Your task to perform on an android device: set the stopwatch Image 0: 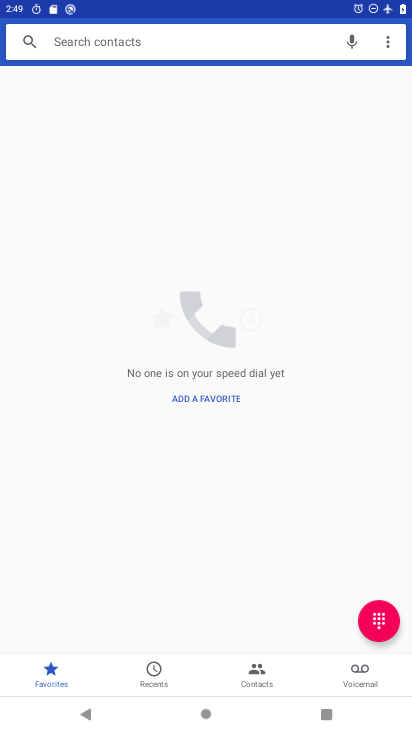
Step 0: press home button
Your task to perform on an android device: set the stopwatch Image 1: 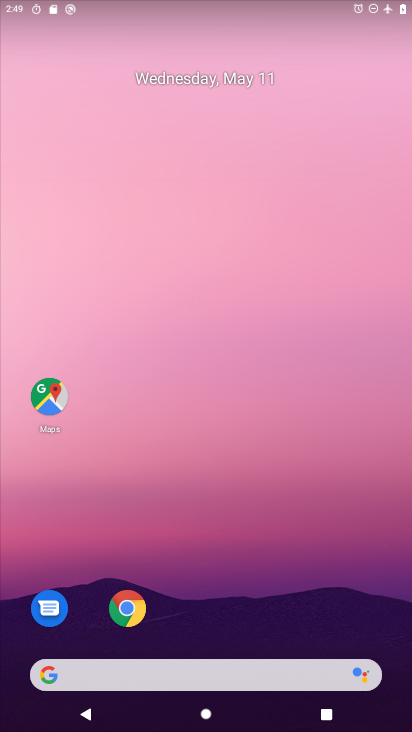
Step 1: drag from (208, 626) to (212, 70)
Your task to perform on an android device: set the stopwatch Image 2: 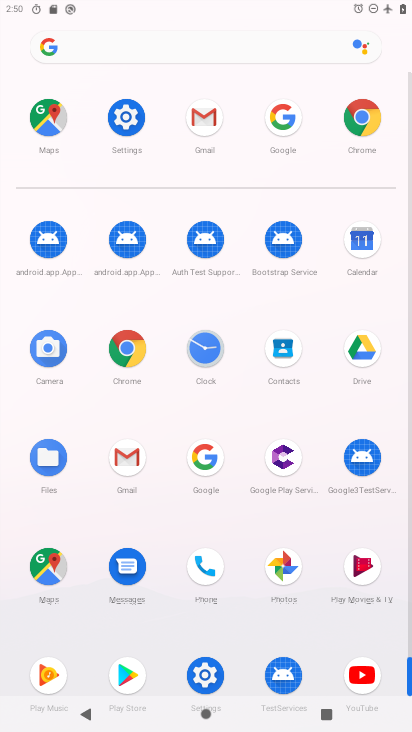
Step 2: click (196, 375)
Your task to perform on an android device: set the stopwatch Image 3: 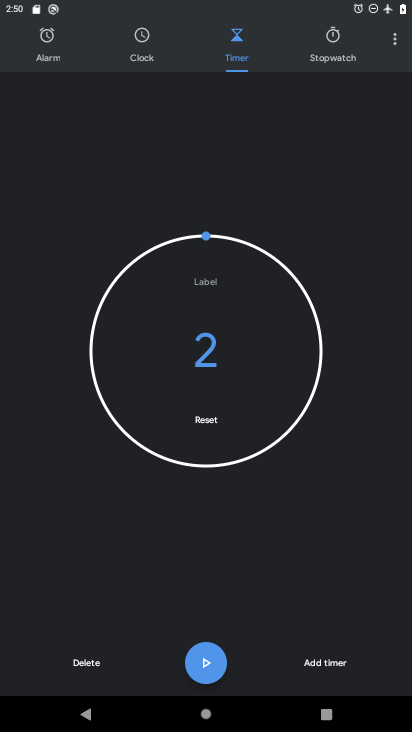
Step 3: click (318, 61)
Your task to perform on an android device: set the stopwatch Image 4: 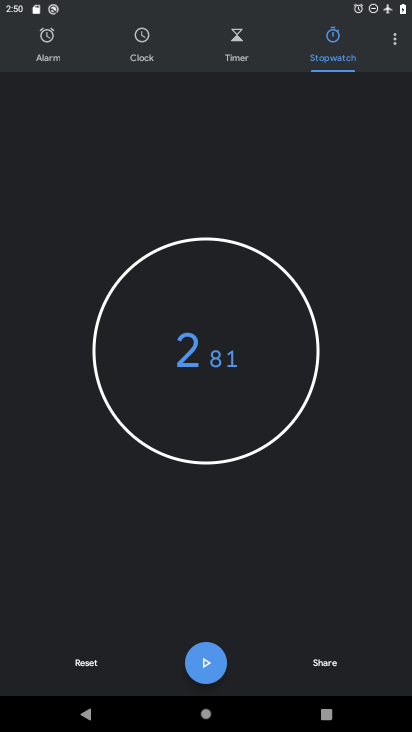
Step 4: click (191, 675)
Your task to perform on an android device: set the stopwatch Image 5: 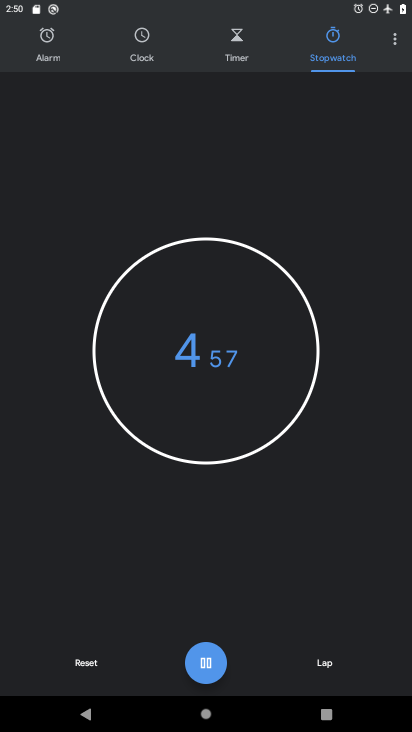
Step 5: task complete